Your task to perform on an android device: all mails in gmail Image 0: 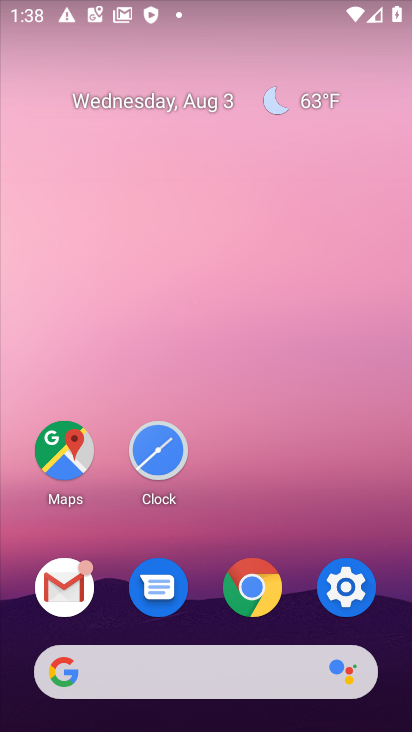
Step 0: click (67, 588)
Your task to perform on an android device: all mails in gmail Image 1: 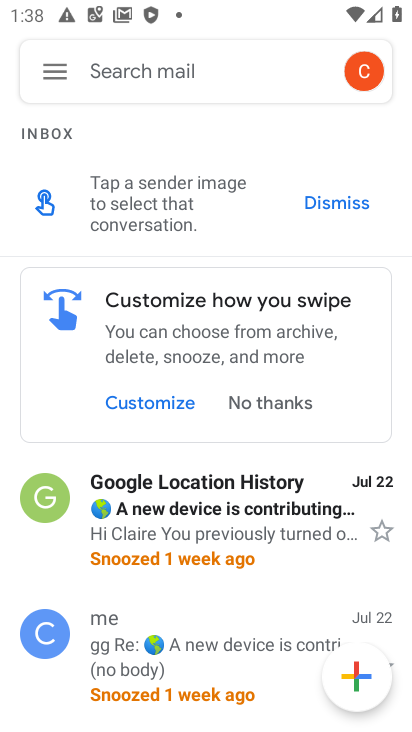
Step 1: click (48, 70)
Your task to perform on an android device: all mails in gmail Image 2: 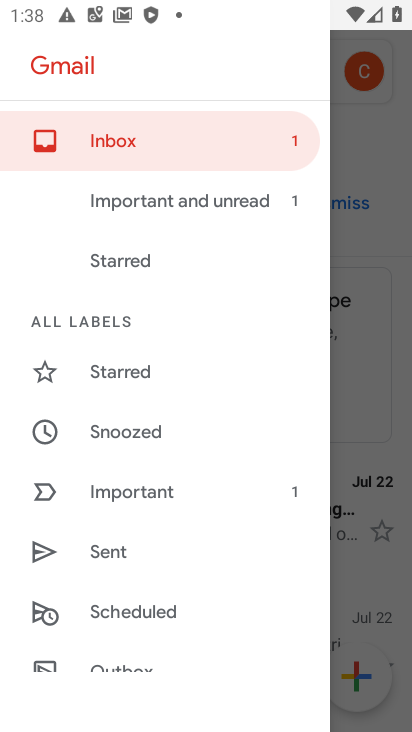
Step 2: drag from (203, 608) to (199, 277)
Your task to perform on an android device: all mails in gmail Image 3: 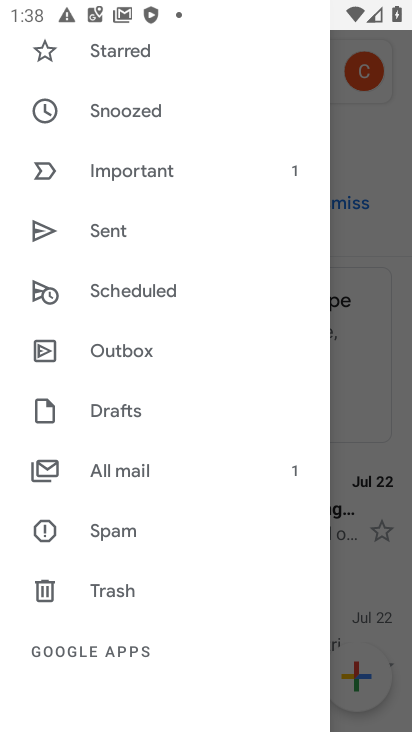
Step 3: click (130, 633)
Your task to perform on an android device: all mails in gmail Image 4: 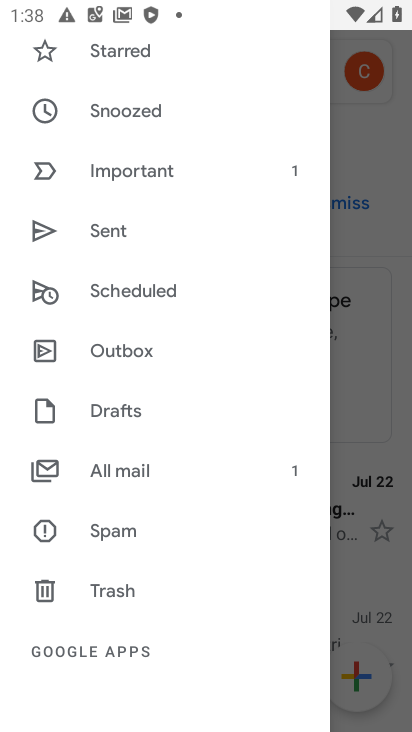
Step 4: click (145, 467)
Your task to perform on an android device: all mails in gmail Image 5: 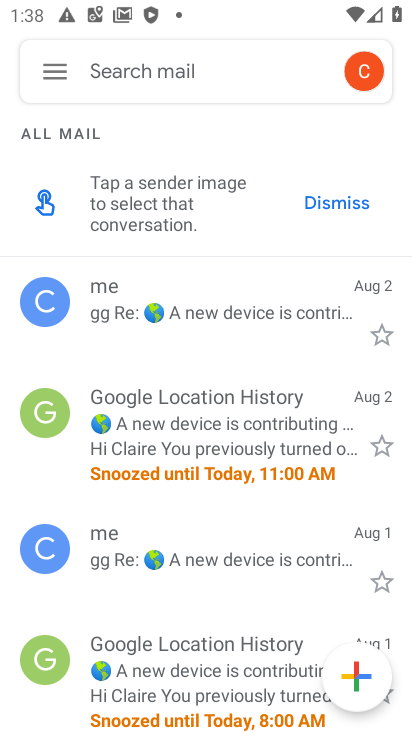
Step 5: task complete